Your task to perform on an android device: Check the news Image 0: 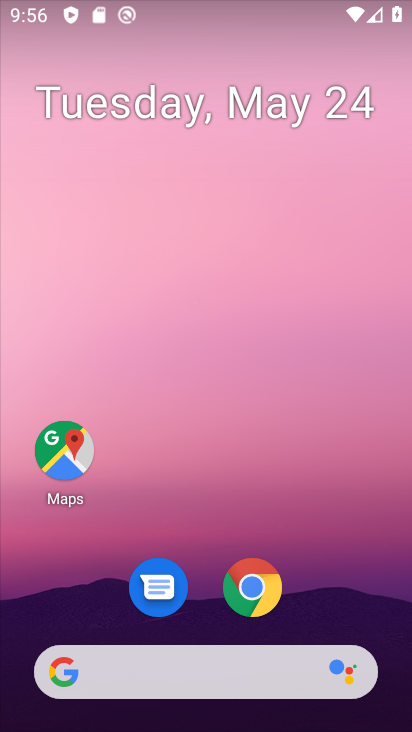
Step 0: drag from (408, 690) to (403, 82)
Your task to perform on an android device: Check the news Image 1: 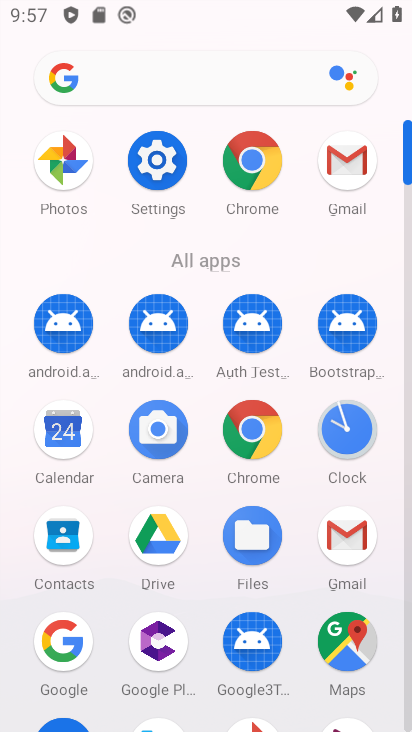
Step 1: click (252, 176)
Your task to perform on an android device: Check the news Image 2: 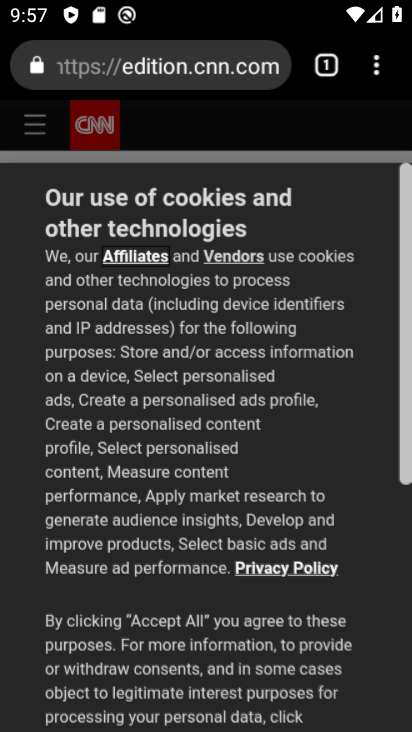
Step 2: click (180, 61)
Your task to perform on an android device: Check the news Image 3: 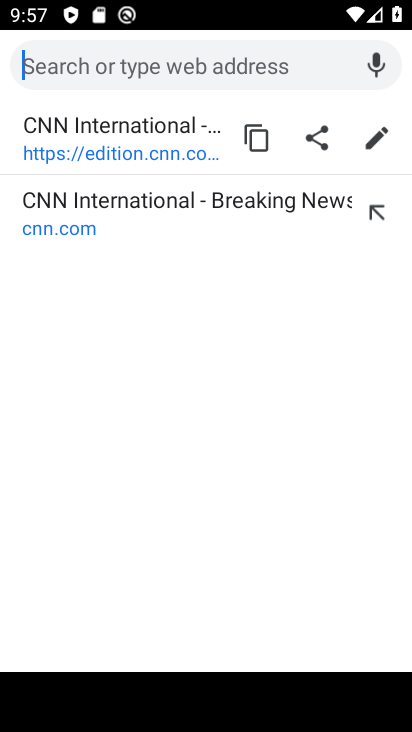
Step 3: type " news"
Your task to perform on an android device: Check the news Image 4: 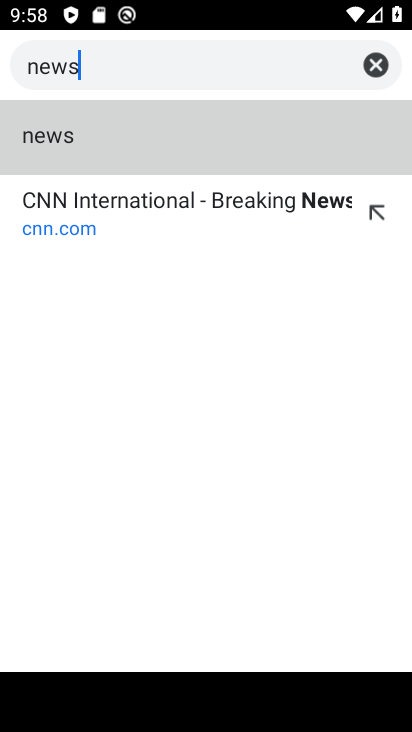
Step 4: type ""
Your task to perform on an android device: Check the news Image 5: 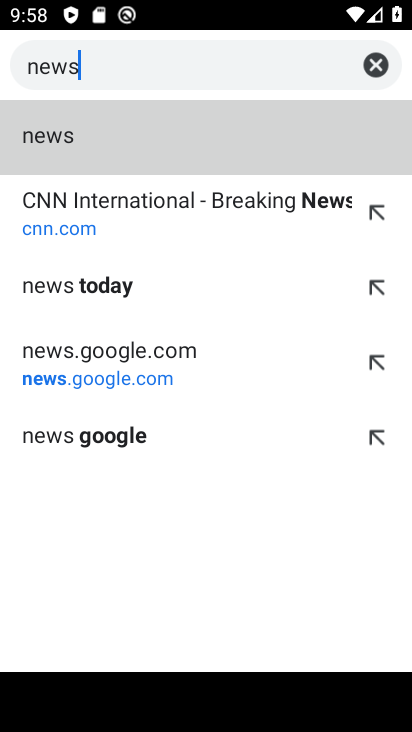
Step 5: click (137, 128)
Your task to perform on an android device: Check the news Image 6: 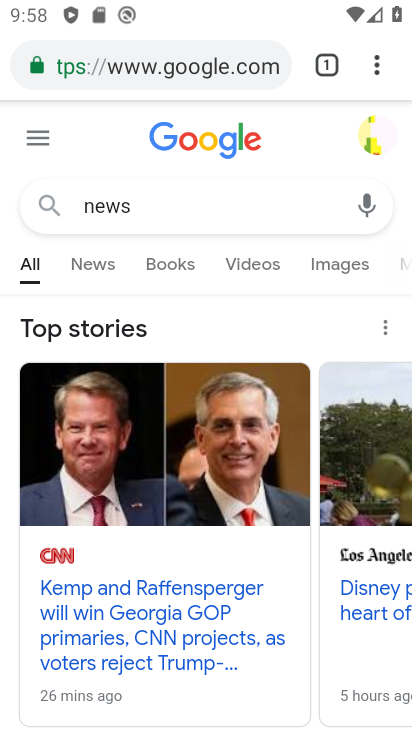
Step 6: task complete